Your task to perform on an android device: Open Google Chrome and click the shortcut for Amazon.com Image 0: 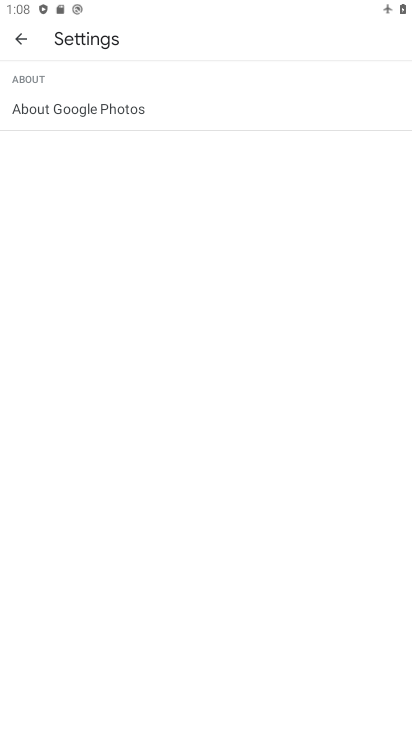
Step 0: press home button
Your task to perform on an android device: Open Google Chrome and click the shortcut for Amazon.com Image 1: 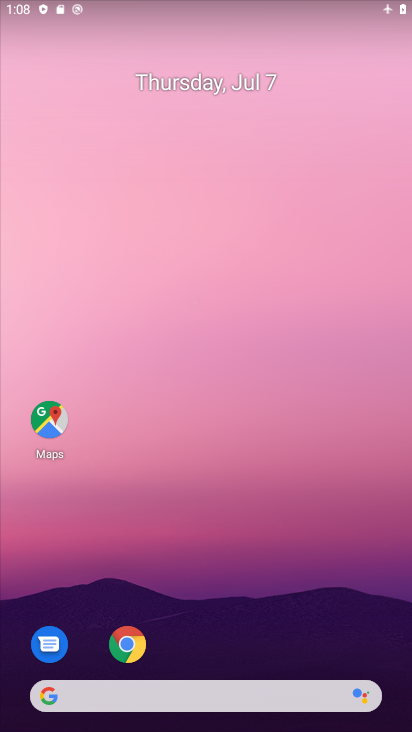
Step 1: drag from (220, 619) to (184, 183)
Your task to perform on an android device: Open Google Chrome and click the shortcut for Amazon.com Image 2: 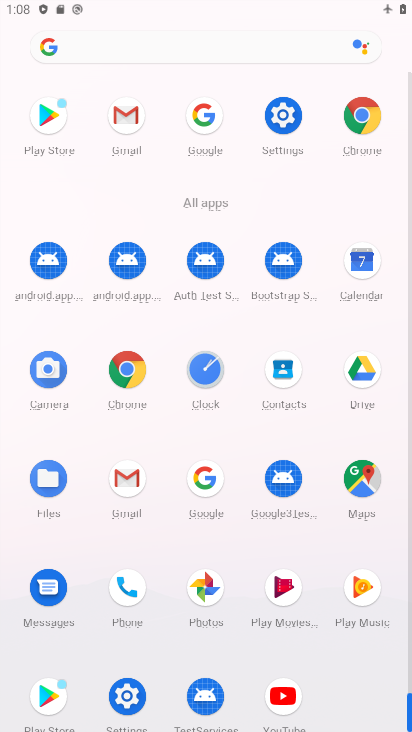
Step 2: click (361, 117)
Your task to perform on an android device: Open Google Chrome and click the shortcut for Amazon.com Image 3: 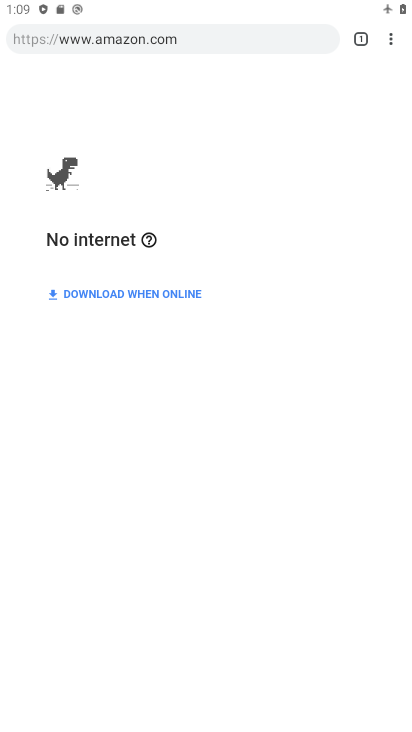
Step 3: task complete